Your task to perform on an android device: Open Android settings Image 0: 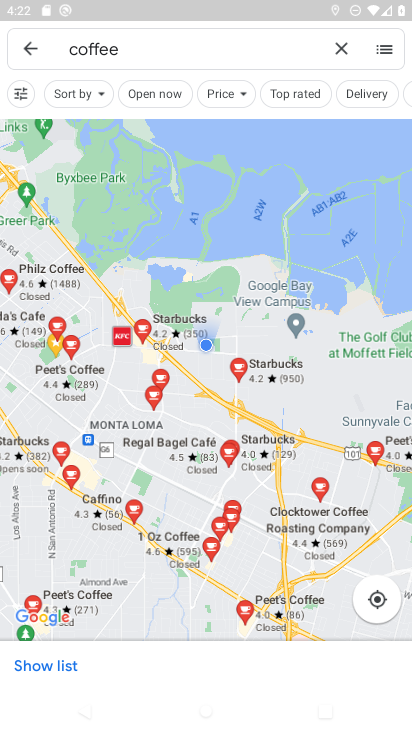
Step 0: click (330, 64)
Your task to perform on an android device: Open Android settings Image 1: 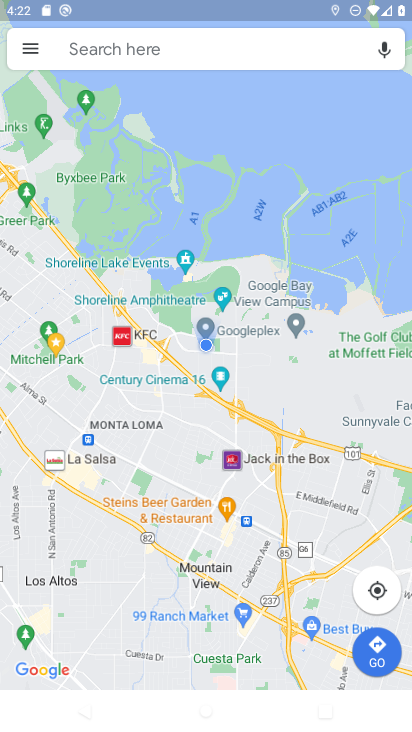
Step 1: press home button
Your task to perform on an android device: Open Android settings Image 2: 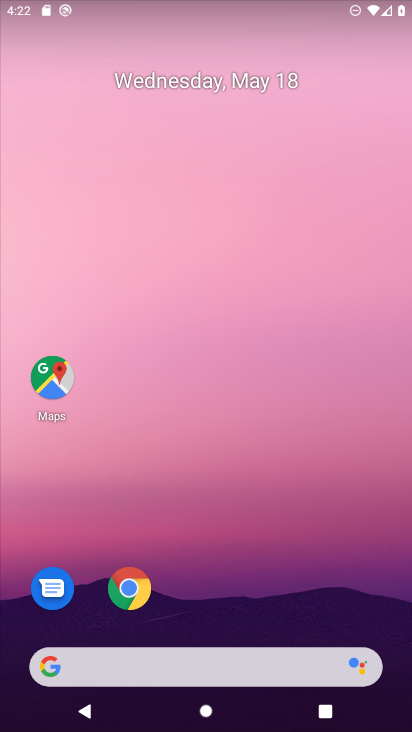
Step 2: drag from (265, 603) to (278, 39)
Your task to perform on an android device: Open Android settings Image 3: 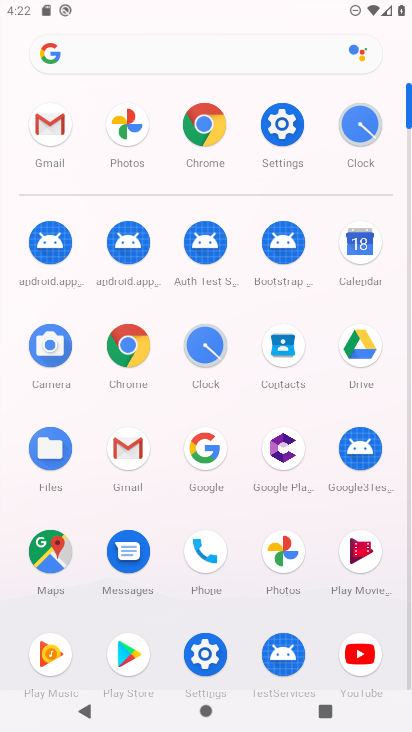
Step 3: click (274, 106)
Your task to perform on an android device: Open Android settings Image 4: 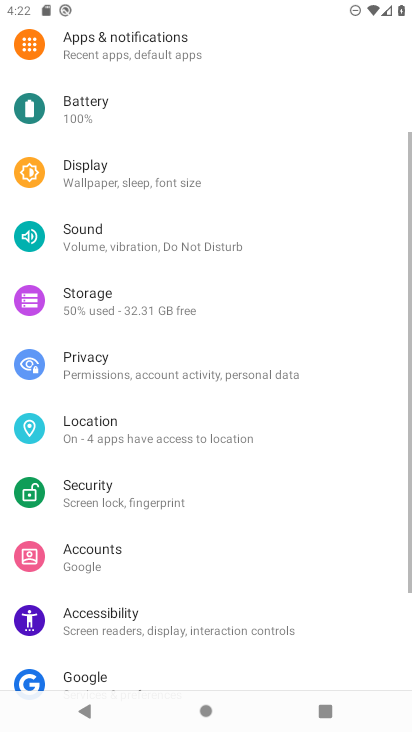
Step 4: drag from (183, 583) to (303, 95)
Your task to perform on an android device: Open Android settings Image 5: 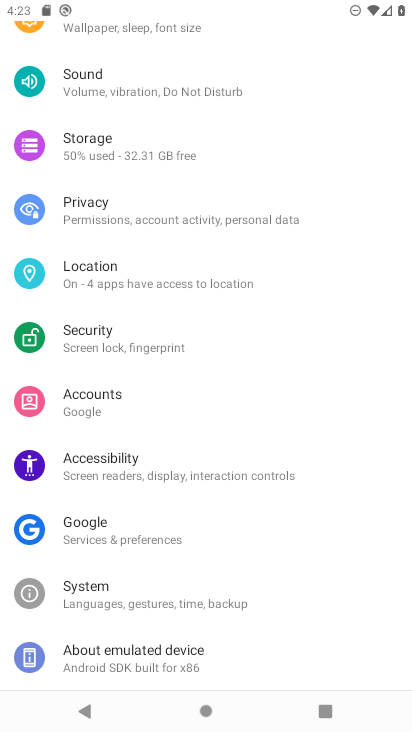
Step 5: click (133, 645)
Your task to perform on an android device: Open Android settings Image 6: 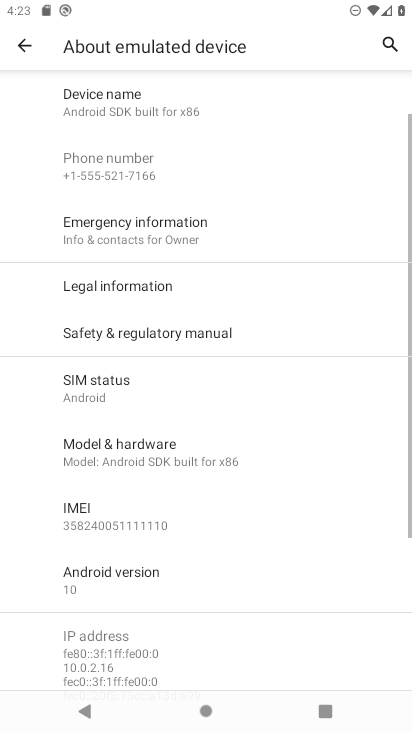
Step 6: task complete